Your task to perform on an android device: Open Google Chrome and click the shortcut for Amazon.com Image 0: 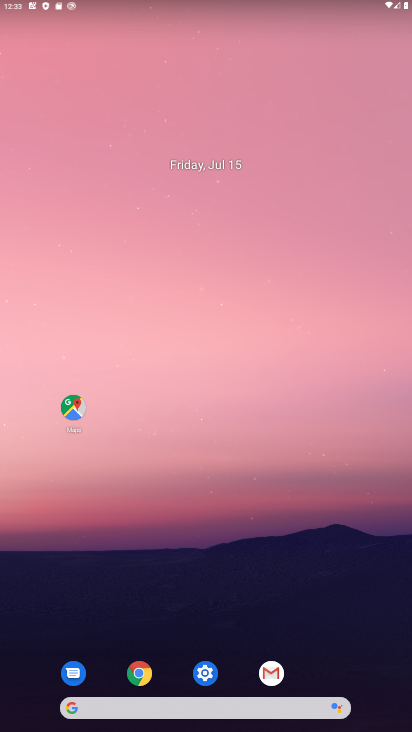
Step 0: press home button
Your task to perform on an android device: Open Google Chrome and click the shortcut for Amazon.com Image 1: 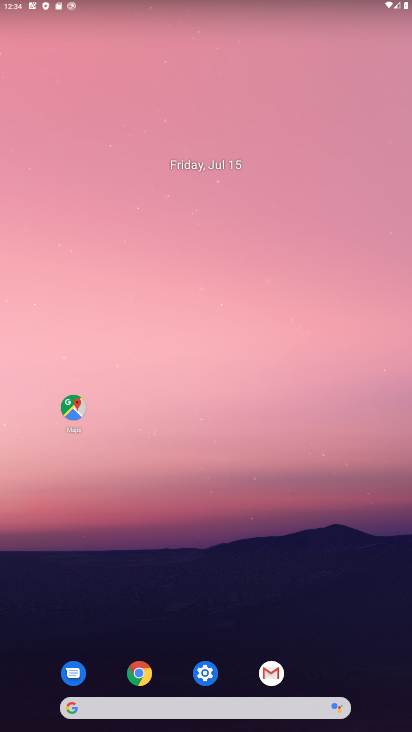
Step 1: click (142, 672)
Your task to perform on an android device: Open Google Chrome and click the shortcut for Amazon.com Image 2: 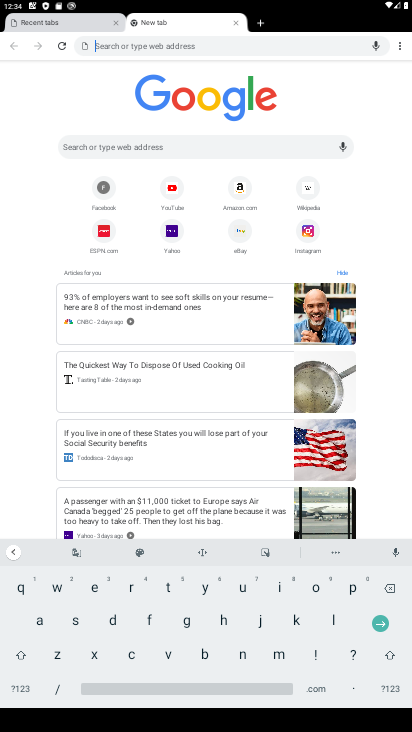
Step 2: click (241, 193)
Your task to perform on an android device: Open Google Chrome and click the shortcut for Amazon.com Image 3: 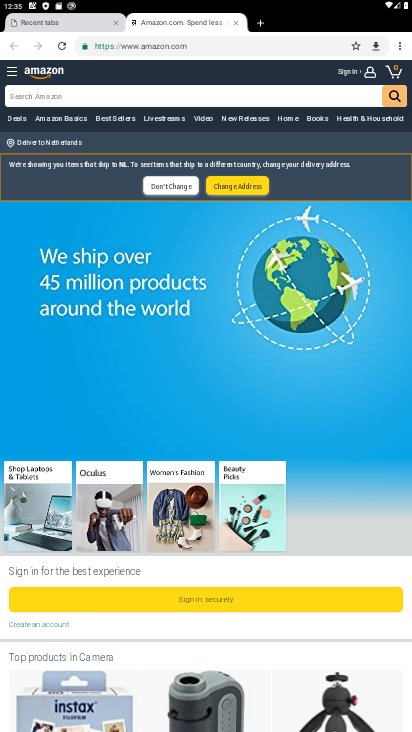
Step 3: task complete